Your task to perform on an android device: change the clock display to show seconds Image 0: 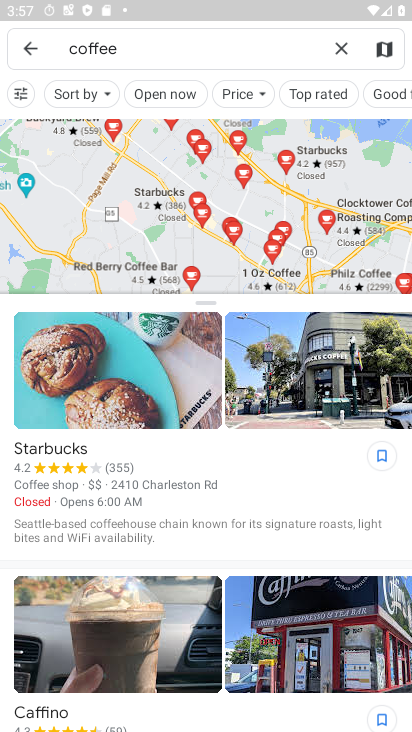
Step 0: press home button
Your task to perform on an android device: change the clock display to show seconds Image 1: 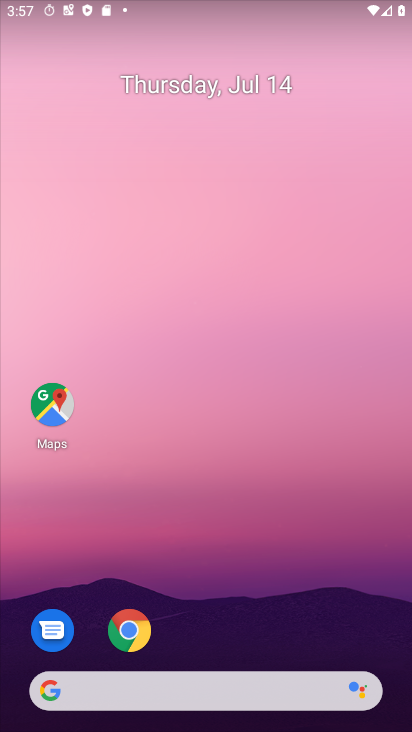
Step 1: drag from (210, 714) to (210, 114)
Your task to perform on an android device: change the clock display to show seconds Image 2: 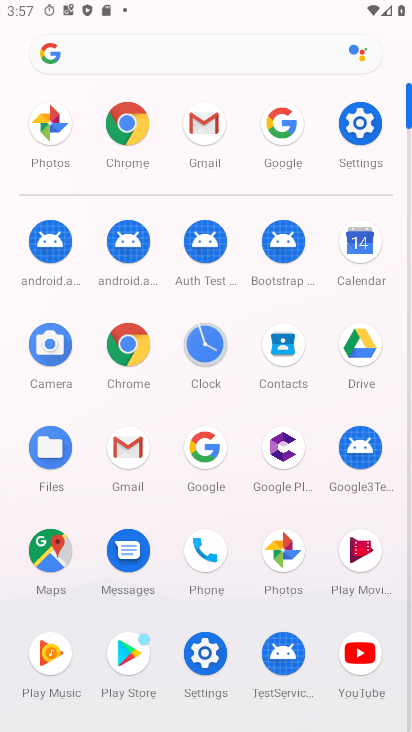
Step 2: click (209, 343)
Your task to perform on an android device: change the clock display to show seconds Image 3: 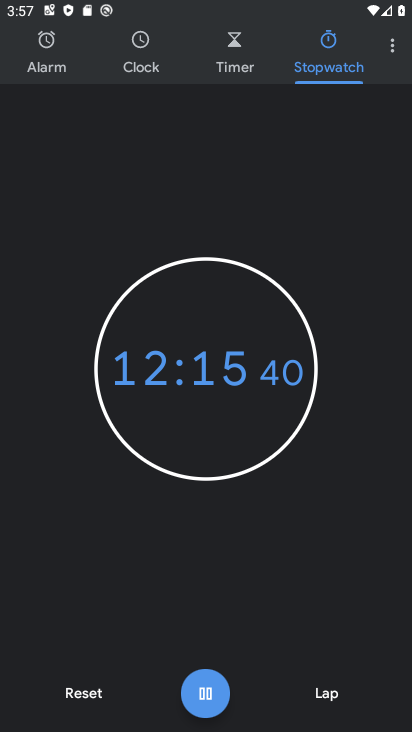
Step 3: click (394, 50)
Your task to perform on an android device: change the clock display to show seconds Image 4: 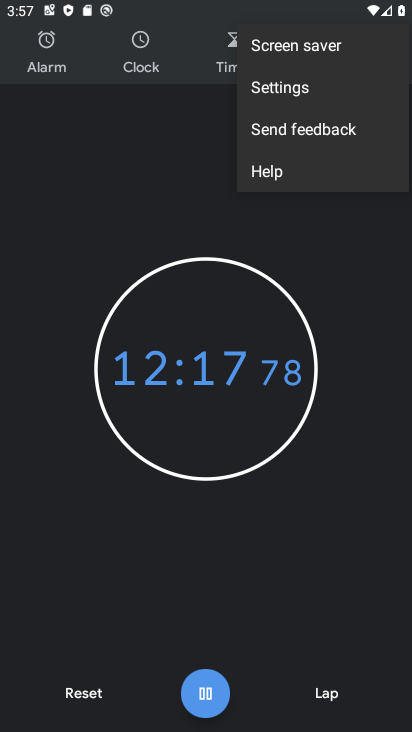
Step 4: click (286, 84)
Your task to perform on an android device: change the clock display to show seconds Image 5: 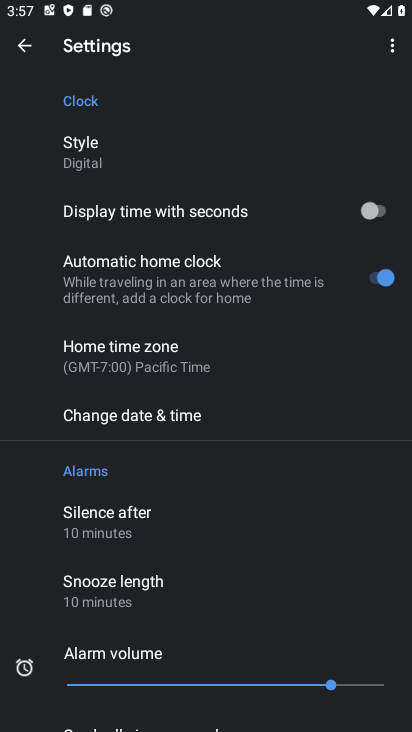
Step 5: click (377, 211)
Your task to perform on an android device: change the clock display to show seconds Image 6: 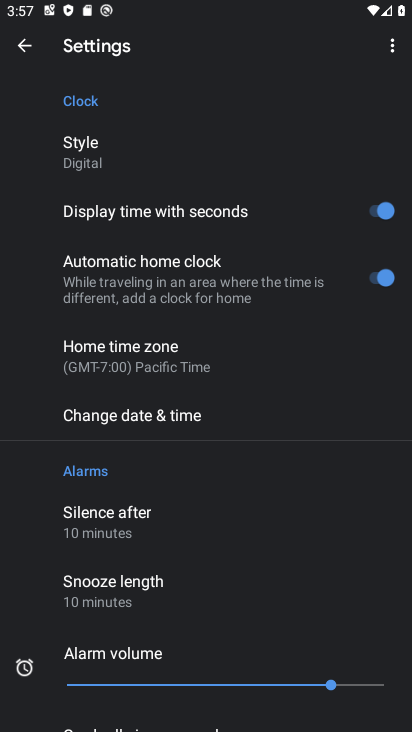
Step 6: task complete